Your task to perform on an android device: Open internet settings Image 0: 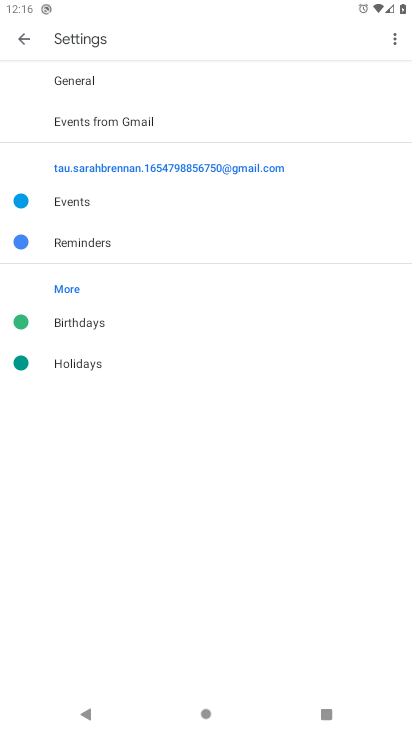
Step 0: press home button
Your task to perform on an android device: Open internet settings Image 1: 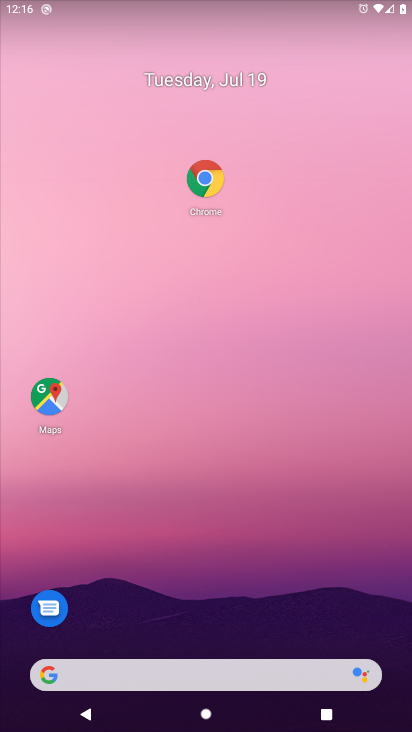
Step 1: drag from (49, 688) to (226, 122)
Your task to perform on an android device: Open internet settings Image 2: 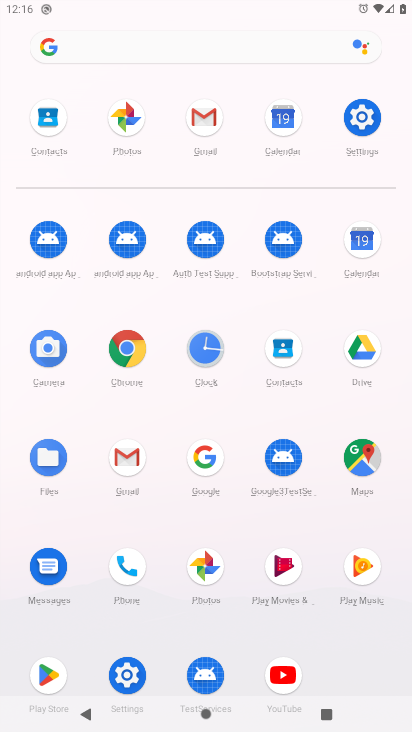
Step 2: click (136, 680)
Your task to perform on an android device: Open internet settings Image 3: 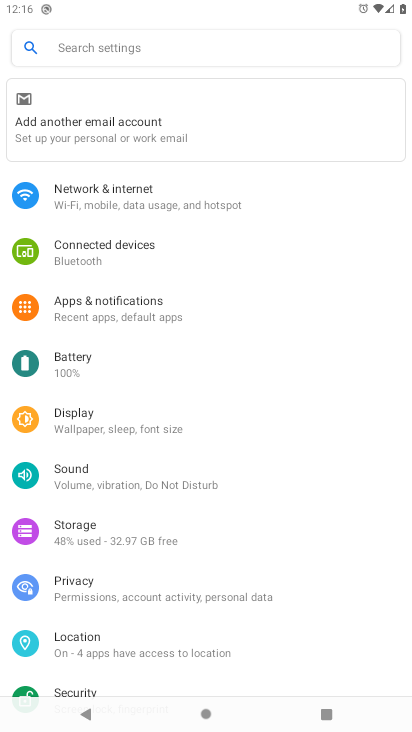
Step 3: click (176, 198)
Your task to perform on an android device: Open internet settings Image 4: 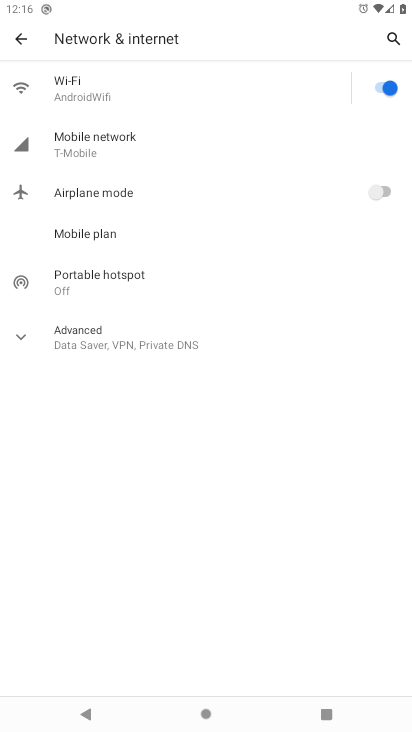
Step 4: task complete